Your task to perform on an android device: toggle improve location accuracy Image 0: 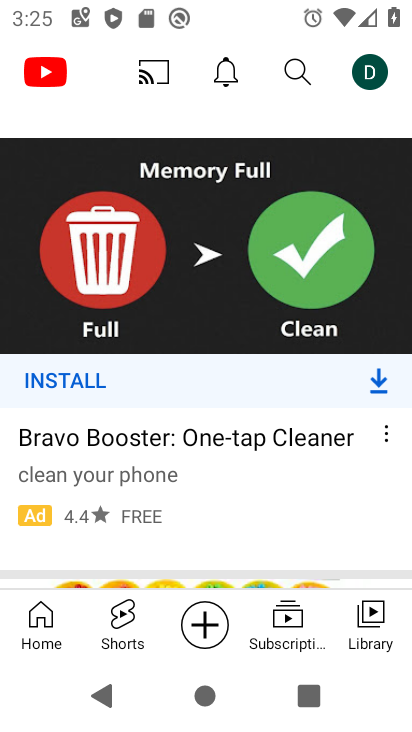
Step 0: press home button
Your task to perform on an android device: toggle improve location accuracy Image 1: 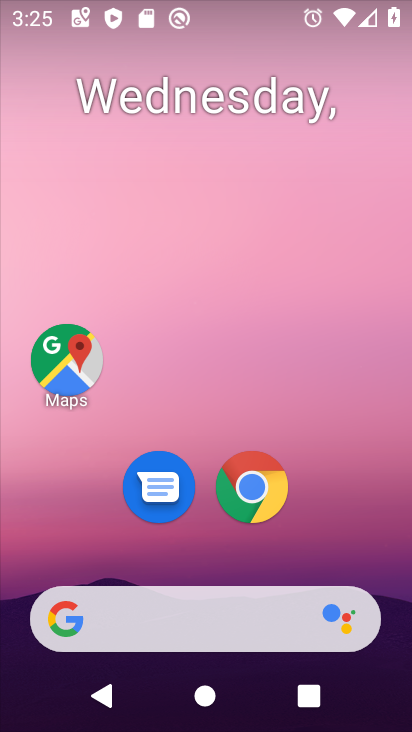
Step 1: drag from (374, 530) to (375, 125)
Your task to perform on an android device: toggle improve location accuracy Image 2: 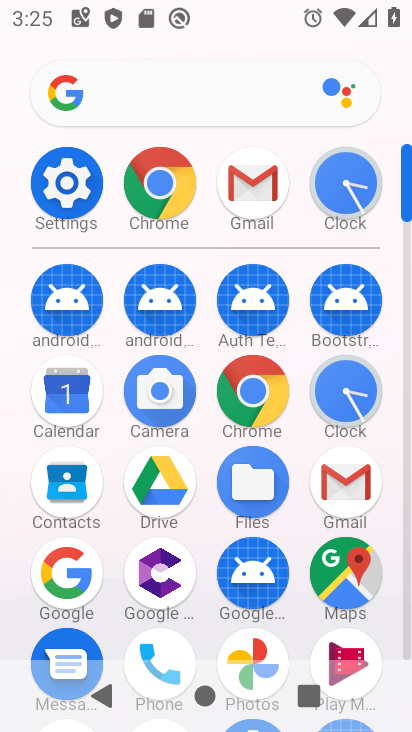
Step 2: click (72, 202)
Your task to perform on an android device: toggle improve location accuracy Image 3: 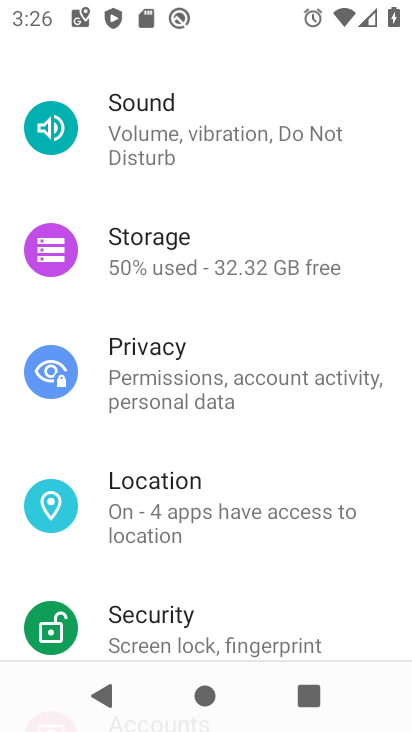
Step 3: drag from (365, 241) to (363, 363)
Your task to perform on an android device: toggle improve location accuracy Image 4: 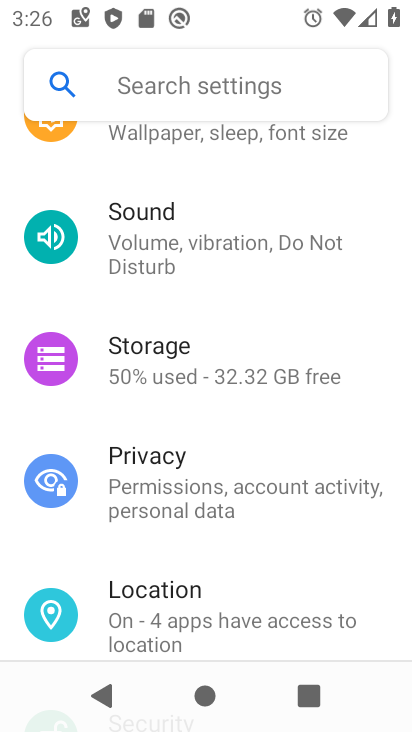
Step 4: drag from (363, 201) to (359, 302)
Your task to perform on an android device: toggle improve location accuracy Image 5: 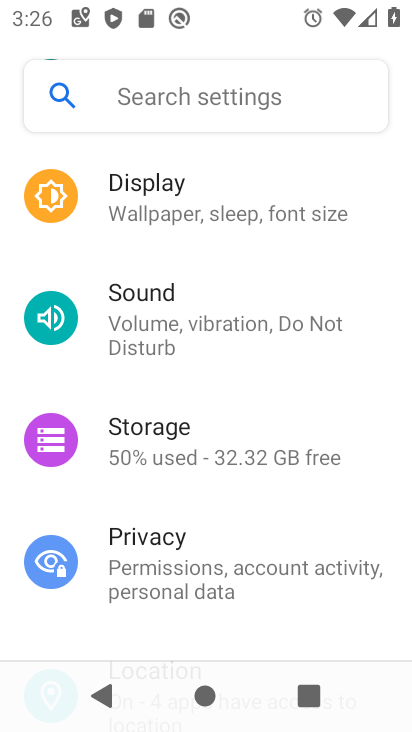
Step 5: drag from (366, 200) to (374, 362)
Your task to perform on an android device: toggle improve location accuracy Image 6: 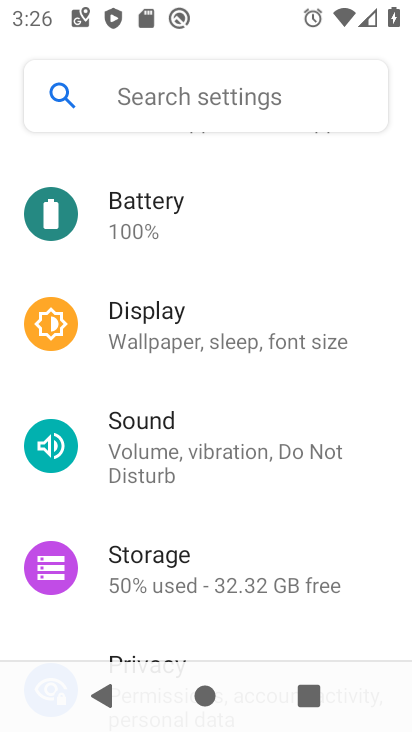
Step 6: drag from (366, 210) to (365, 323)
Your task to perform on an android device: toggle improve location accuracy Image 7: 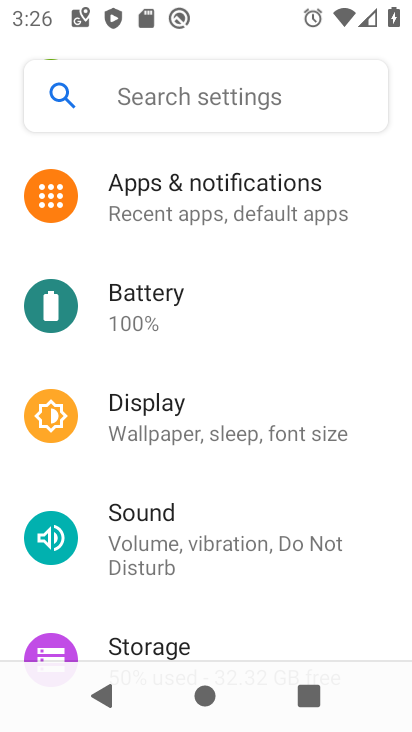
Step 7: drag from (368, 190) to (365, 347)
Your task to perform on an android device: toggle improve location accuracy Image 8: 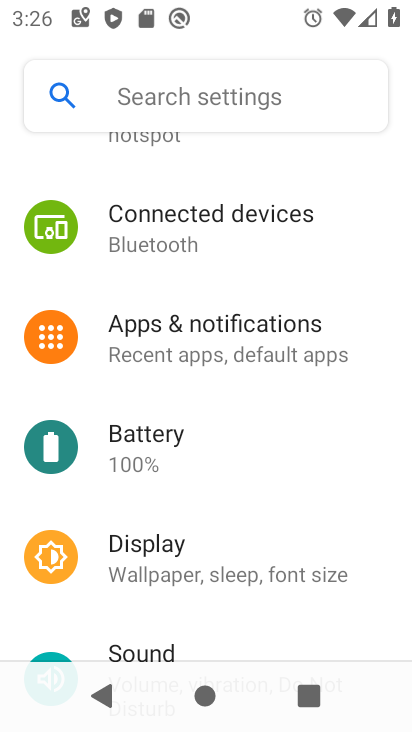
Step 8: drag from (356, 460) to (367, 344)
Your task to perform on an android device: toggle improve location accuracy Image 9: 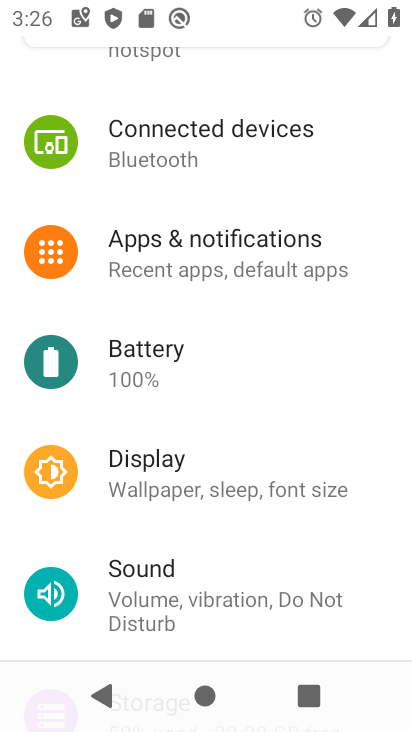
Step 9: drag from (354, 452) to (367, 330)
Your task to perform on an android device: toggle improve location accuracy Image 10: 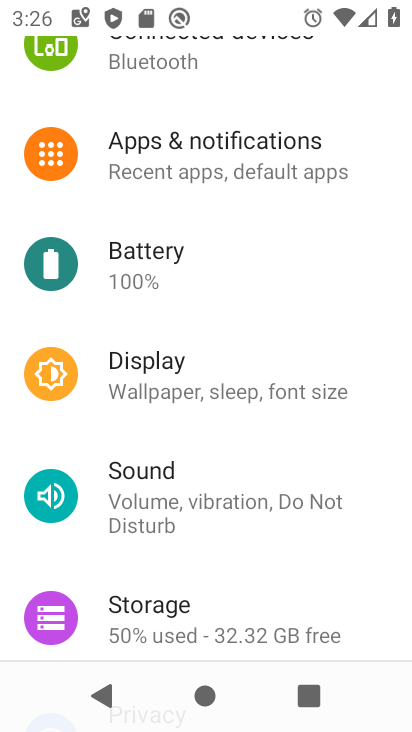
Step 10: drag from (350, 539) to (358, 420)
Your task to perform on an android device: toggle improve location accuracy Image 11: 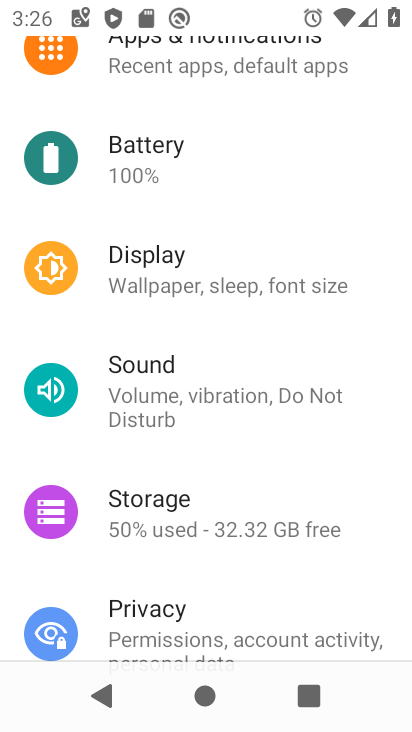
Step 11: drag from (332, 557) to (327, 376)
Your task to perform on an android device: toggle improve location accuracy Image 12: 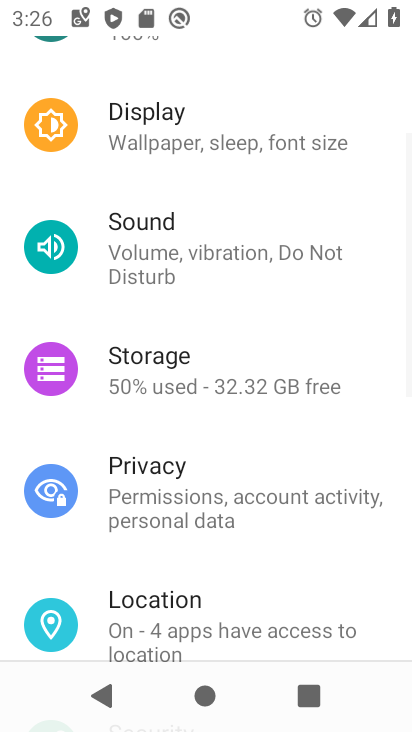
Step 12: drag from (326, 559) to (317, 391)
Your task to perform on an android device: toggle improve location accuracy Image 13: 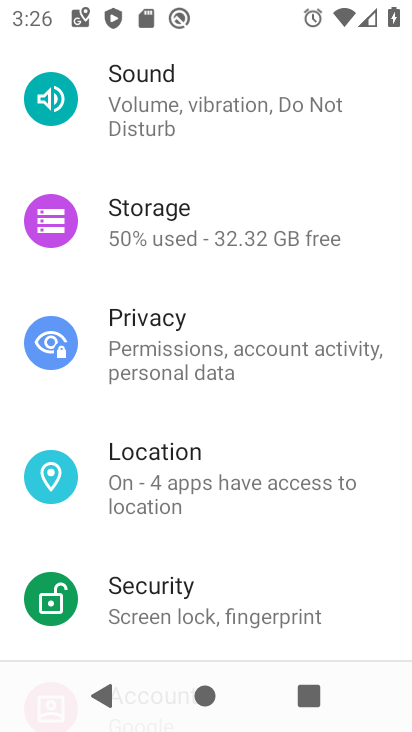
Step 13: drag from (300, 543) to (305, 386)
Your task to perform on an android device: toggle improve location accuracy Image 14: 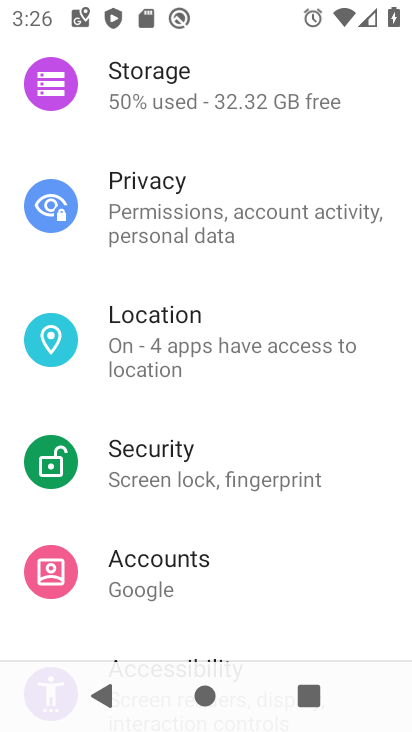
Step 14: click (251, 356)
Your task to perform on an android device: toggle improve location accuracy Image 15: 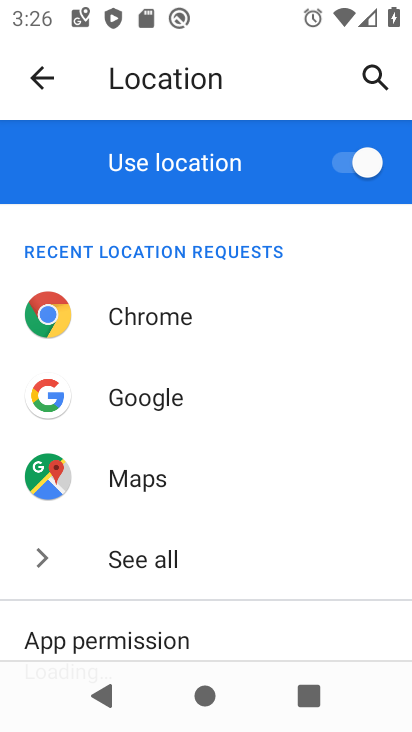
Step 15: drag from (291, 537) to (301, 364)
Your task to perform on an android device: toggle improve location accuracy Image 16: 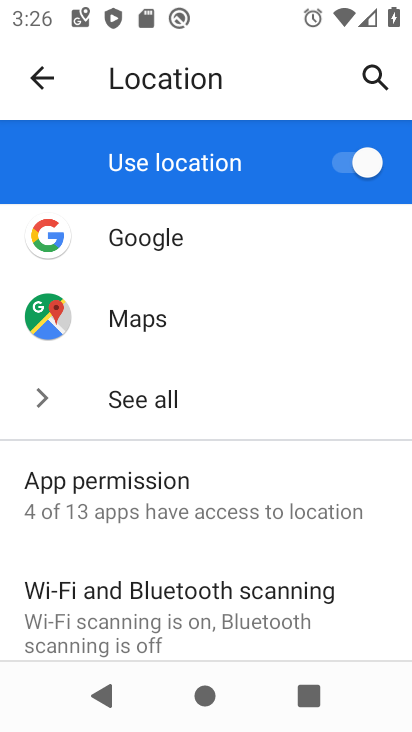
Step 16: drag from (294, 567) to (297, 361)
Your task to perform on an android device: toggle improve location accuracy Image 17: 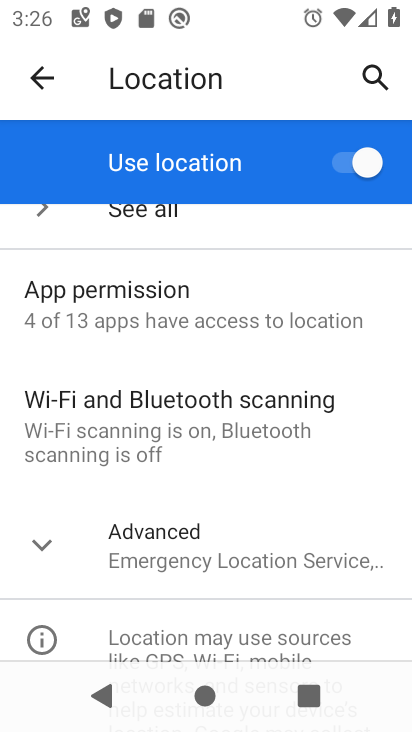
Step 17: click (300, 576)
Your task to perform on an android device: toggle improve location accuracy Image 18: 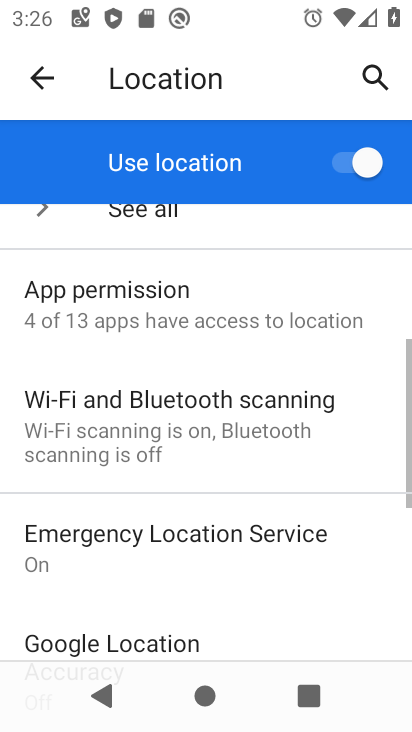
Step 18: drag from (300, 576) to (315, 461)
Your task to perform on an android device: toggle improve location accuracy Image 19: 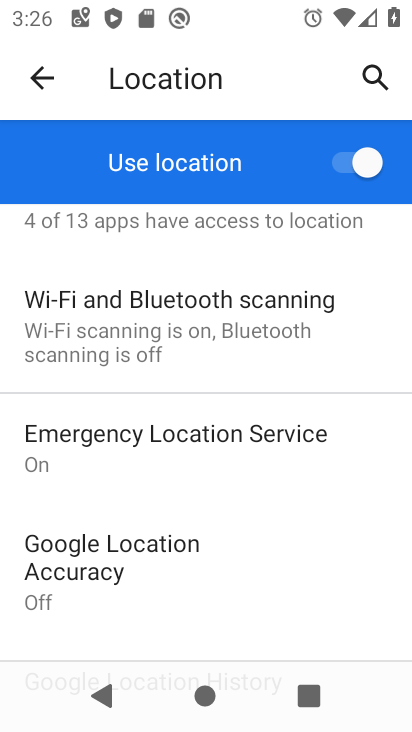
Step 19: drag from (328, 579) to (342, 471)
Your task to perform on an android device: toggle improve location accuracy Image 20: 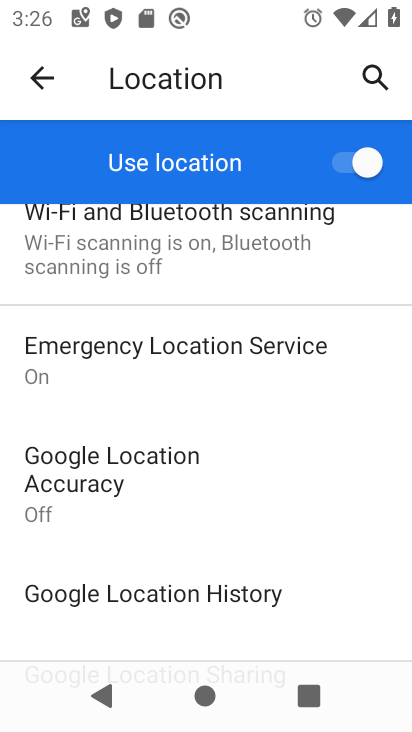
Step 20: click (130, 471)
Your task to perform on an android device: toggle improve location accuracy Image 21: 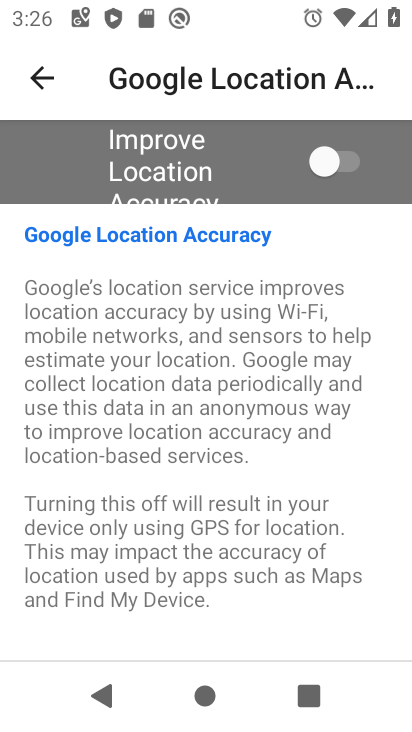
Step 21: click (331, 160)
Your task to perform on an android device: toggle improve location accuracy Image 22: 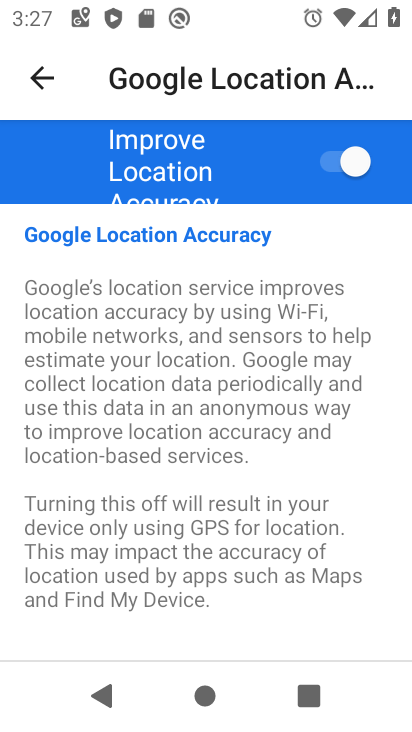
Step 22: task complete